Your task to perform on an android device: Go to location settings Image 0: 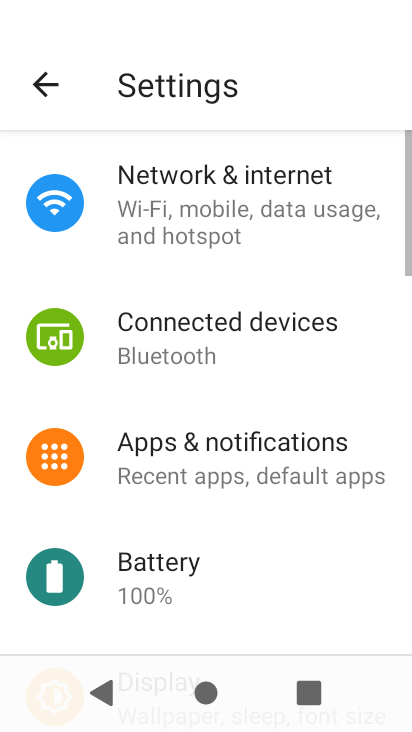
Step 0: drag from (278, 491) to (356, 143)
Your task to perform on an android device: Go to location settings Image 1: 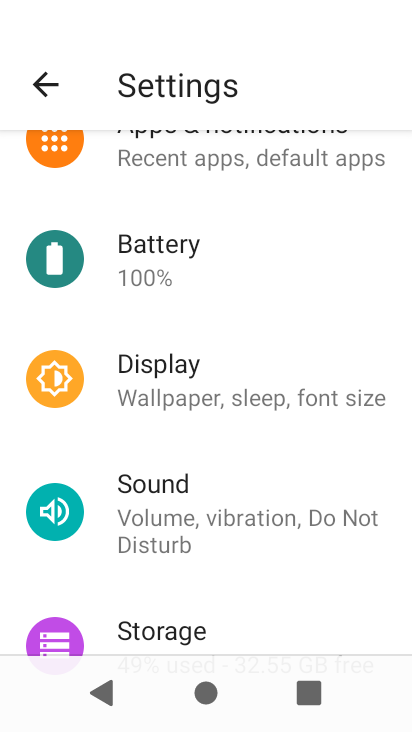
Step 1: drag from (241, 514) to (316, 109)
Your task to perform on an android device: Go to location settings Image 2: 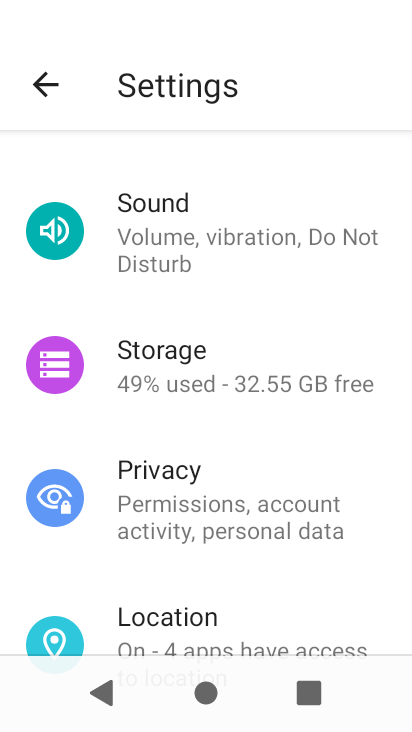
Step 2: drag from (167, 554) to (227, 224)
Your task to perform on an android device: Go to location settings Image 3: 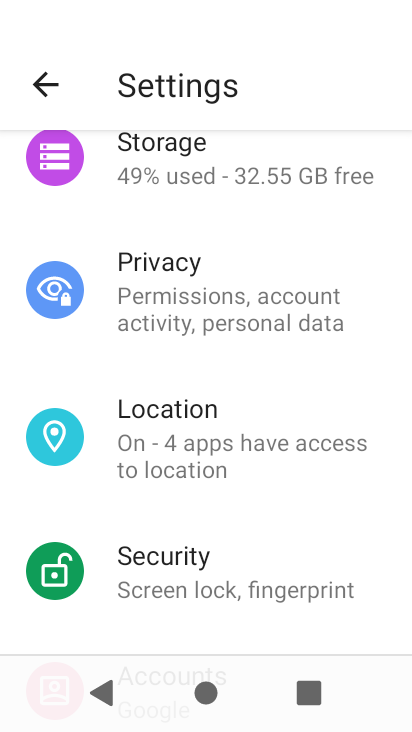
Step 3: click (203, 414)
Your task to perform on an android device: Go to location settings Image 4: 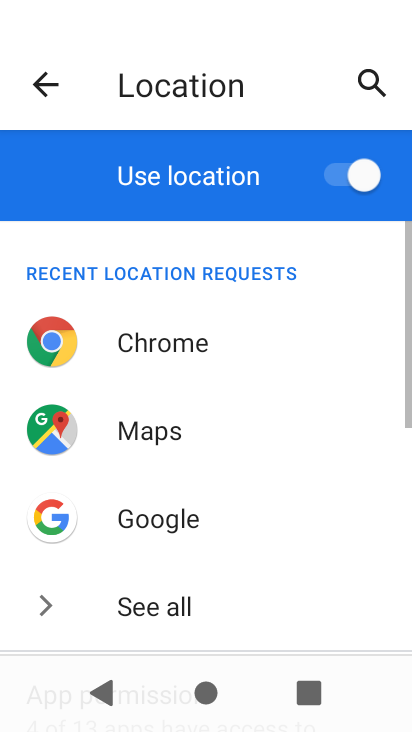
Step 4: task complete